Your task to perform on an android device: open app "Google Home" Image 0: 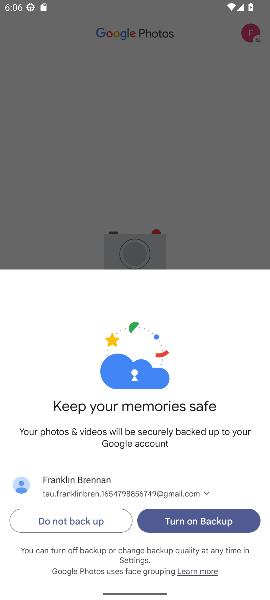
Step 0: press home button
Your task to perform on an android device: open app "Google Home" Image 1: 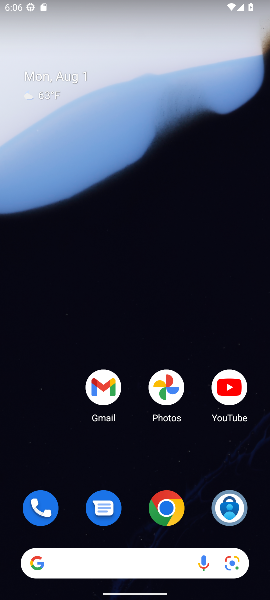
Step 1: drag from (140, 524) to (141, 34)
Your task to perform on an android device: open app "Google Home" Image 2: 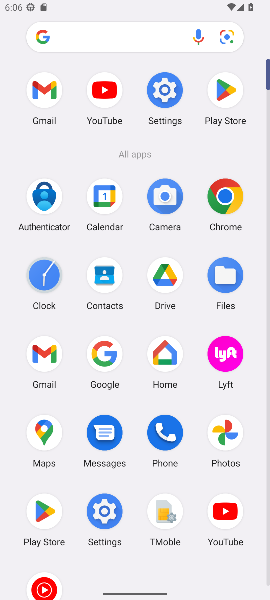
Step 2: click (43, 515)
Your task to perform on an android device: open app "Google Home" Image 3: 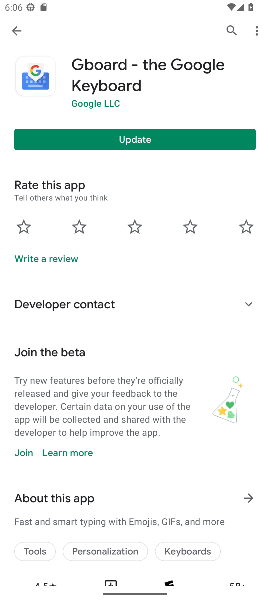
Step 3: click (10, 27)
Your task to perform on an android device: open app "Google Home" Image 4: 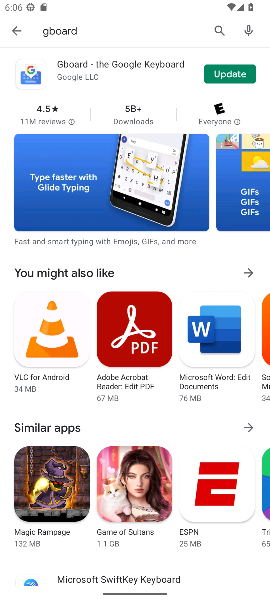
Step 4: click (17, 28)
Your task to perform on an android device: open app "Google Home" Image 5: 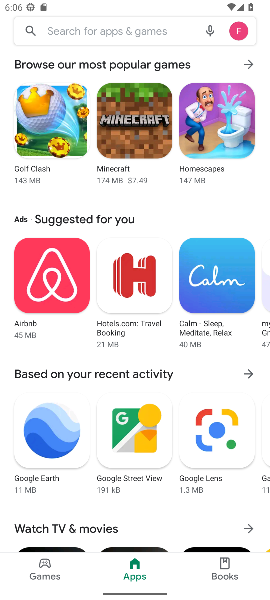
Step 5: click (59, 33)
Your task to perform on an android device: open app "Google Home" Image 6: 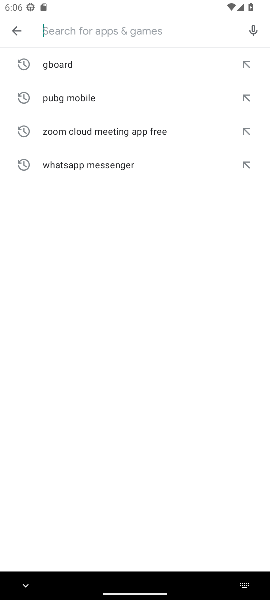
Step 6: type "Google Hom"
Your task to perform on an android device: open app "Google Home" Image 7: 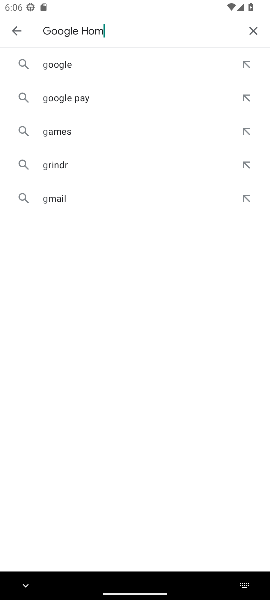
Step 7: type ""
Your task to perform on an android device: open app "Google Home" Image 8: 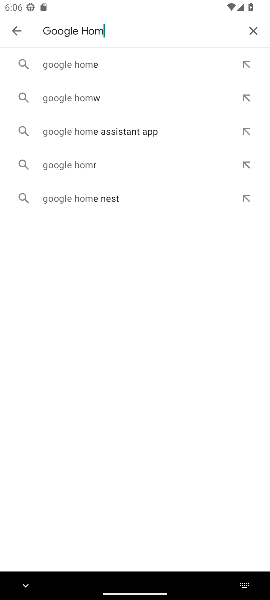
Step 8: click (61, 52)
Your task to perform on an android device: open app "Google Home" Image 9: 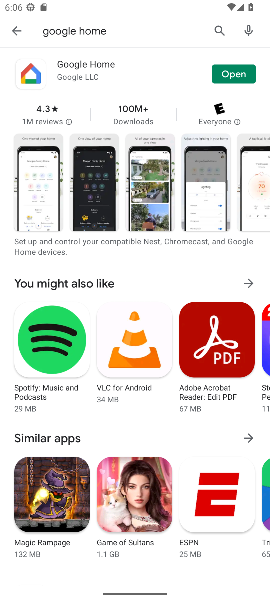
Step 9: click (25, 75)
Your task to perform on an android device: open app "Google Home" Image 10: 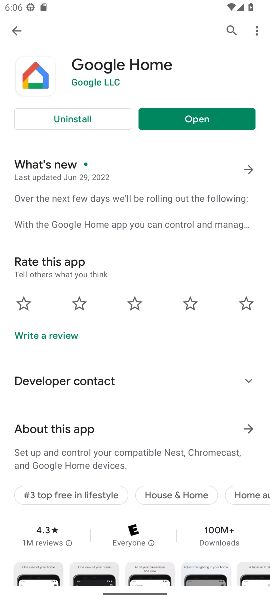
Step 10: click (207, 127)
Your task to perform on an android device: open app "Google Home" Image 11: 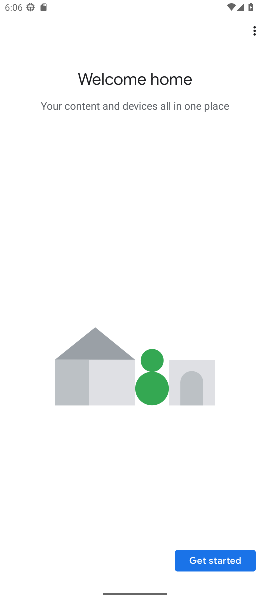
Step 11: task complete